Your task to perform on an android device: Open Reddit.com Image 0: 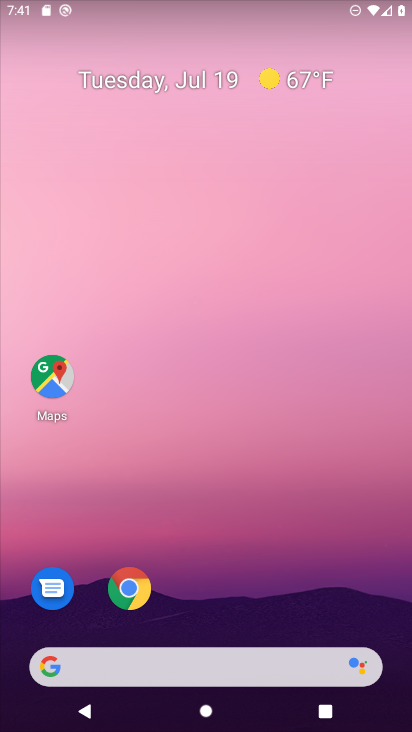
Step 0: drag from (362, 598) to (385, 76)
Your task to perform on an android device: Open Reddit.com Image 1: 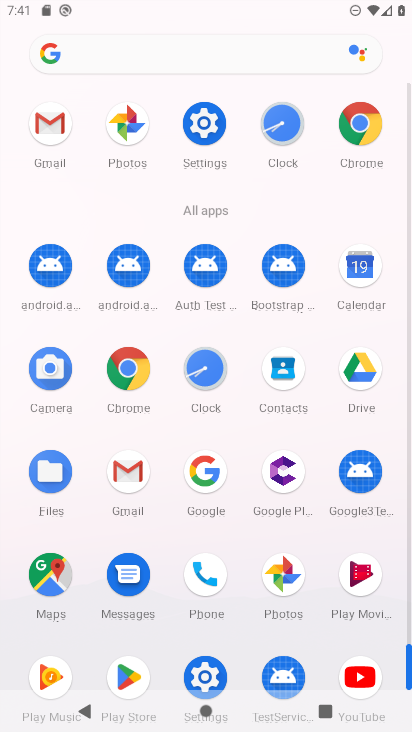
Step 1: click (359, 128)
Your task to perform on an android device: Open Reddit.com Image 2: 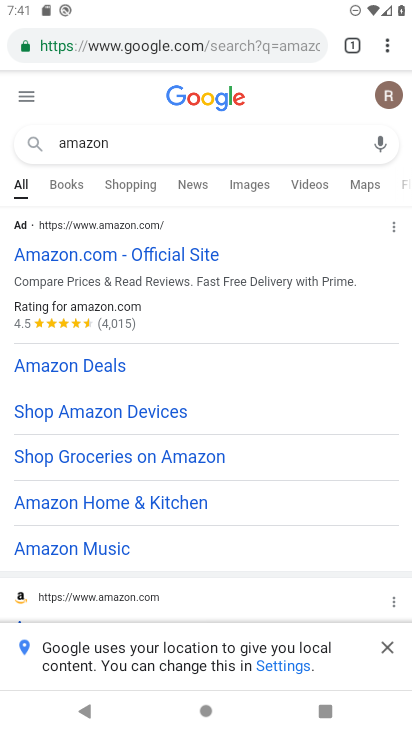
Step 2: click (267, 45)
Your task to perform on an android device: Open Reddit.com Image 3: 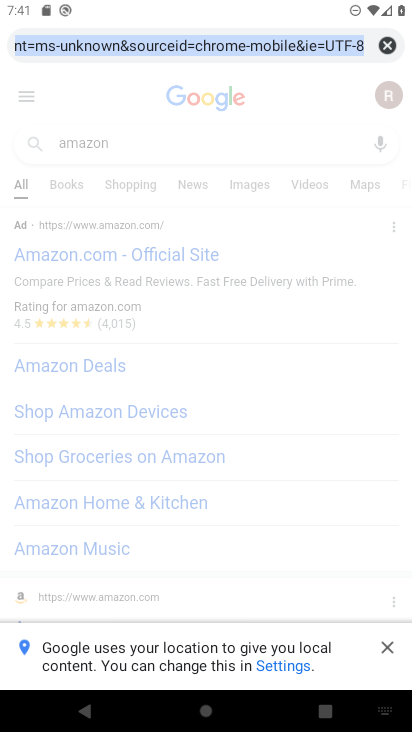
Step 3: type "reddit.com"
Your task to perform on an android device: Open Reddit.com Image 4: 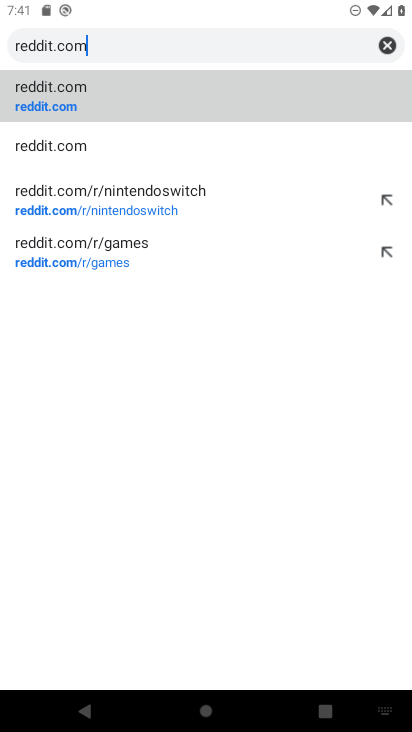
Step 4: click (112, 110)
Your task to perform on an android device: Open Reddit.com Image 5: 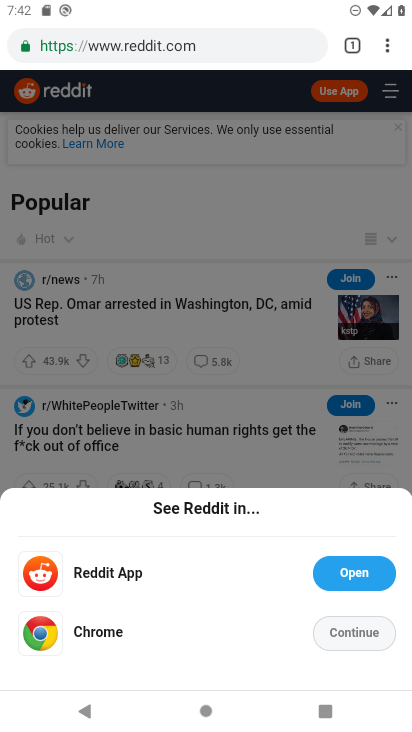
Step 5: task complete